Your task to perform on an android device: turn on wifi Image 0: 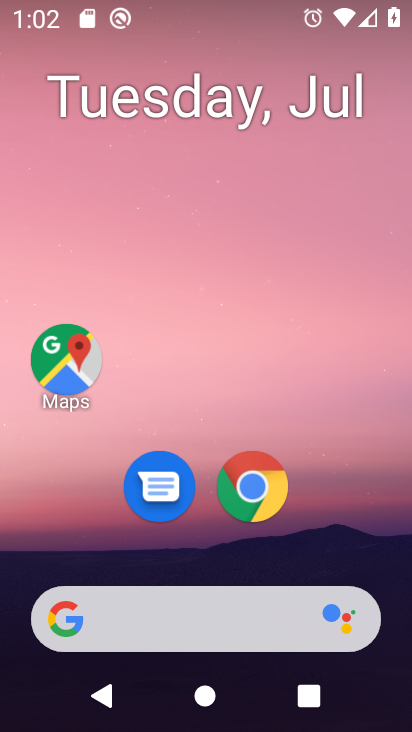
Step 0: drag from (367, 539) to (370, 70)
Your task to perform on an android device: turn on wifi Image 1: 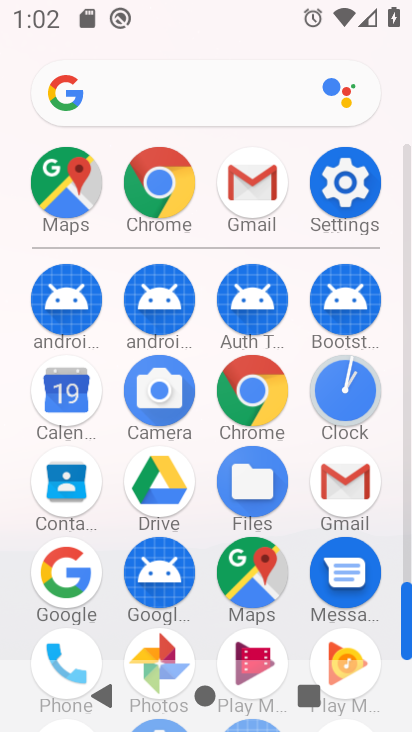
Step 1: click (351, 196)
Your task to perform on an android device: turn on wifi Image 2: 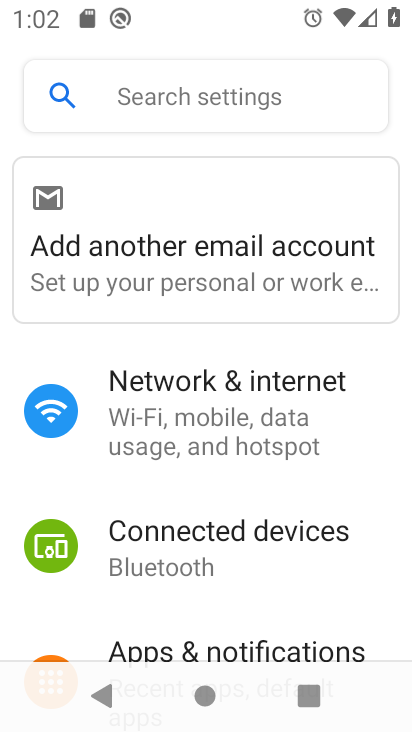
Step 2: drag from (374, 614) to (372, 411)
Your task to perform on an android device: turn on wifi Image 3: 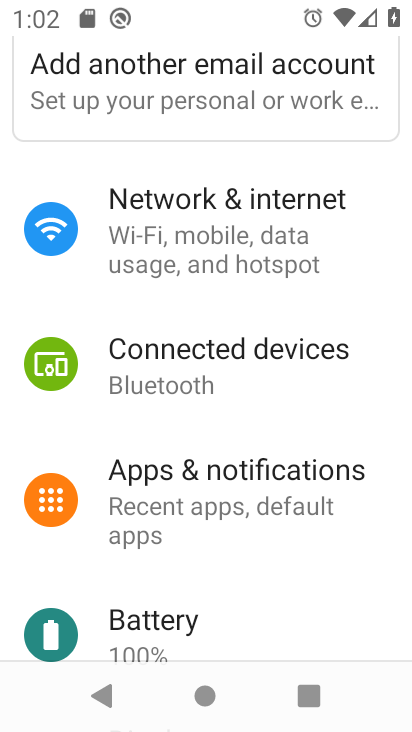
Step 3: drag from (349, 598) to (352, 383)
Your task to perform on an android device: turn on wifi Image 4: 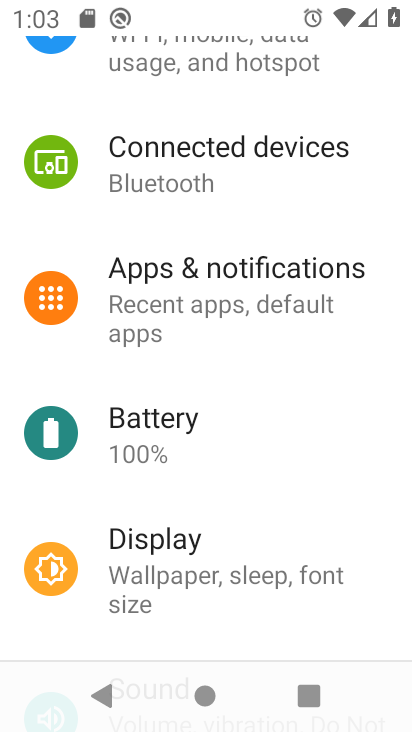
Step 4: drag from (350, 639) to (372, 386)
Your task to perform on an android device: turn on wifi Image 5: 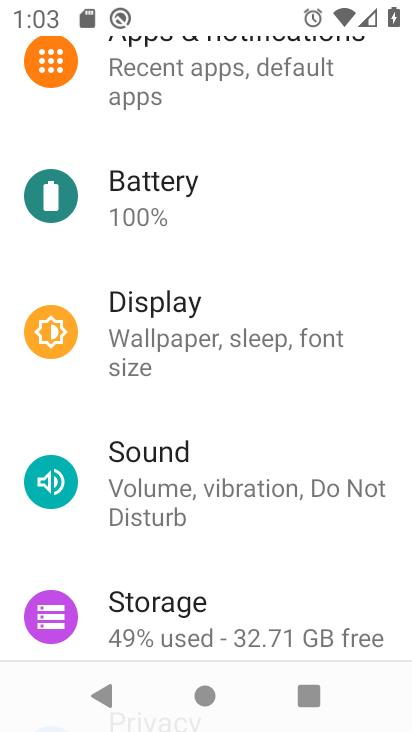
Step 5: drag from (351, 571) to (357, 280)
Your task to perform on an android device: turn on wifi Image 6: 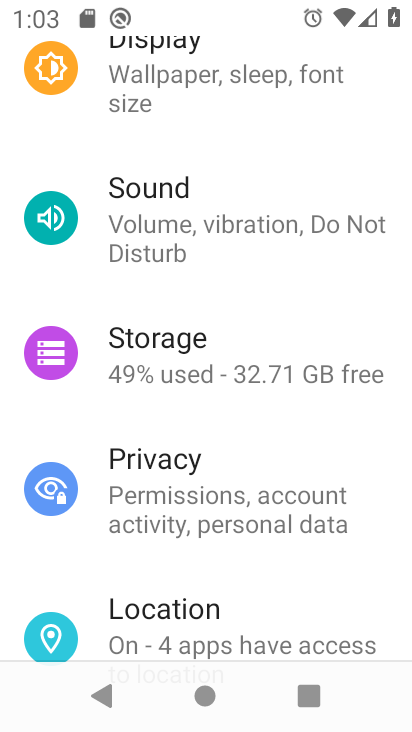
Step 6: drag from (342, 262) to (345, 408)
Your task to perform on an android device: turn on wifi Image 7: 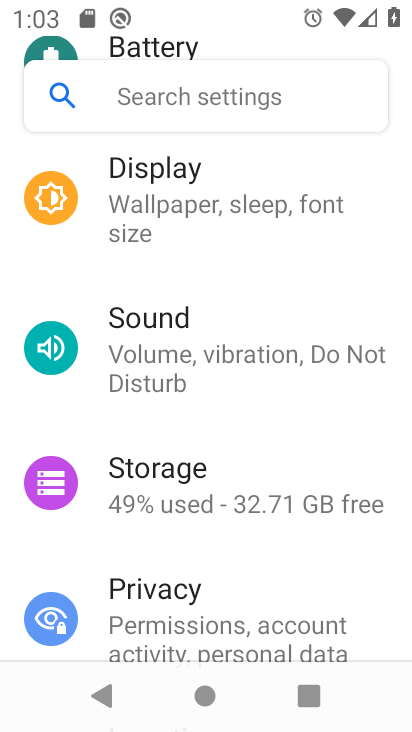
Step 7: drag from (355, 233) to (356, 364)
Your task to perform on an android device: turn on wifi Image 8: 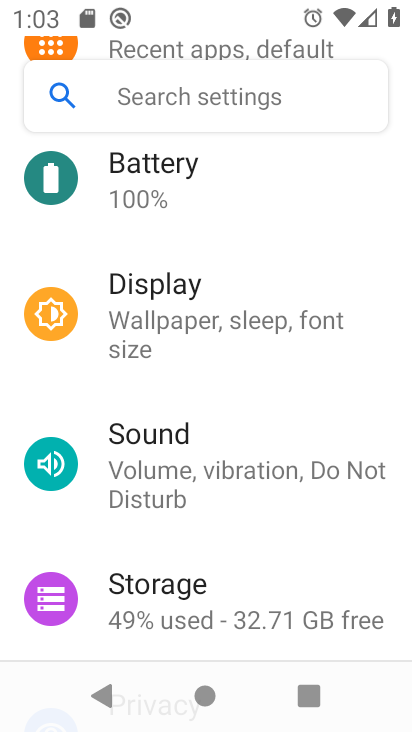
Step 8: drag from (356, 204) to (356, 431)
Your task to perform on an android device: turn on wifi Image 9: 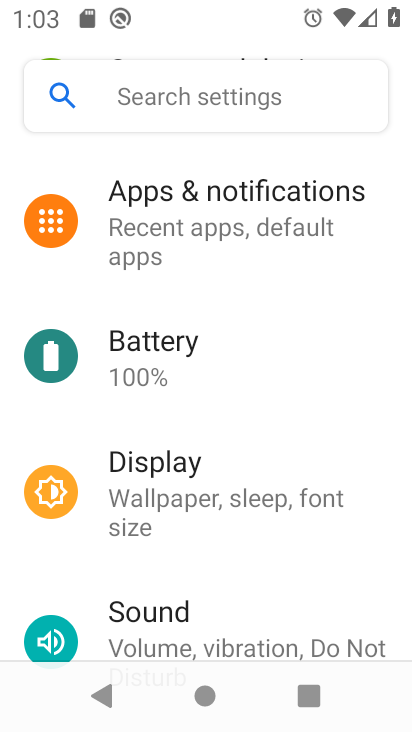
Step 9: drag from (348, 259) to (348, 413)
Your task to perform on an android device: turn on wifi Image 10: 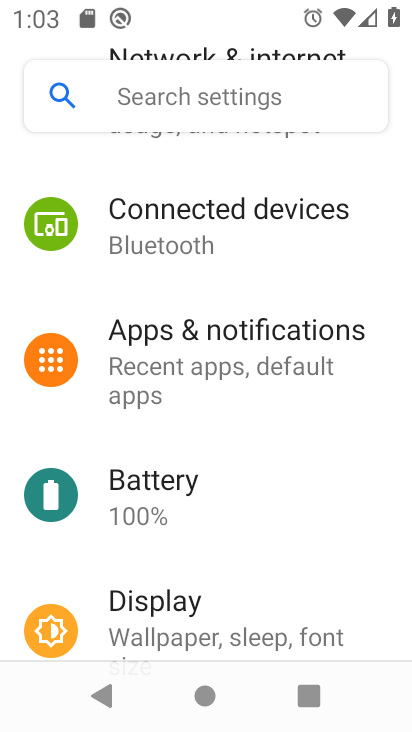
Step 10: drag from (351, 229) to (352, 381)
Your task to perform on an android device: turn on wifi Image 11: 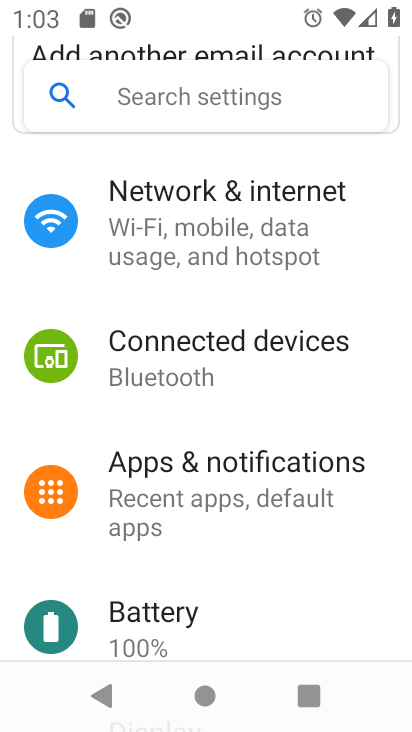
Step 11: click (285, 237)
Your task to perform on an android device: turn on wifi Image 12: 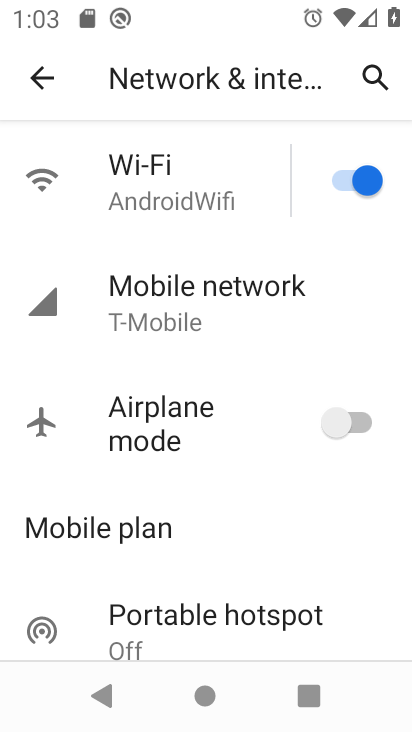
Step 12: task complete